Your task to perform on an android device: empty trash in the gmail app Image 0: 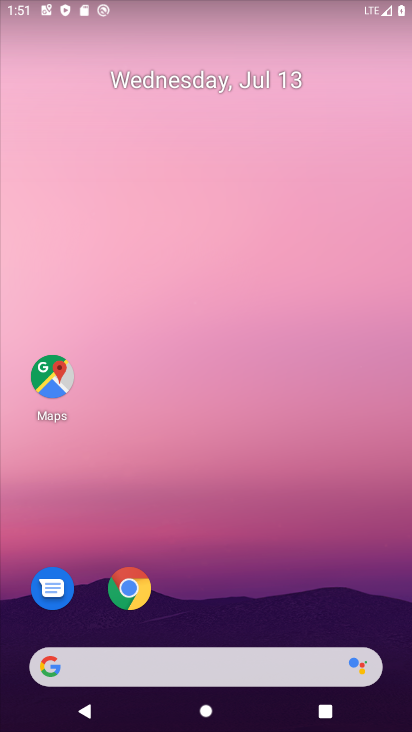
Step 0: drag from (398, 689) to (339, 198)
Your task to perform on an android device: empty trash in the gmail app Image 1: 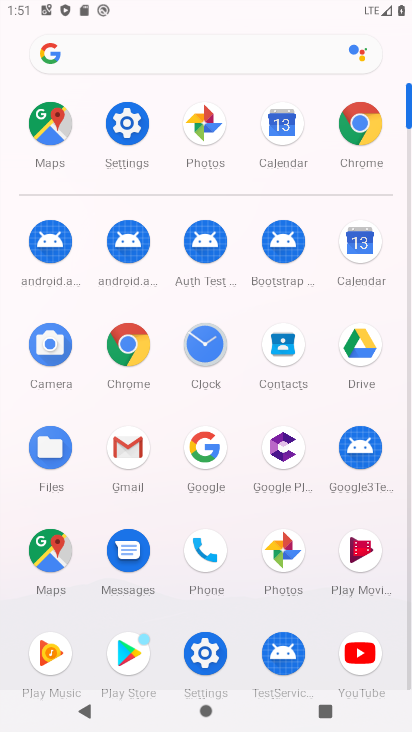
Step 1: click (132, 453)
Your task to perform on an android device: empty trash in the gmail app Image 2: 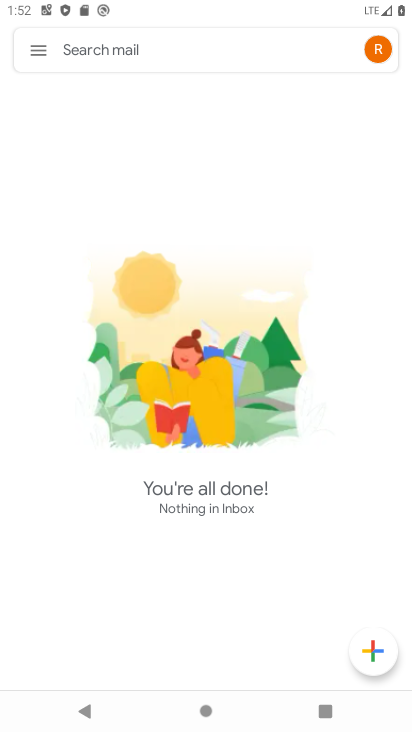
Step 2: click (36, 46)
Your task to perform on an android device: empty trash in the gmail app Image 3: 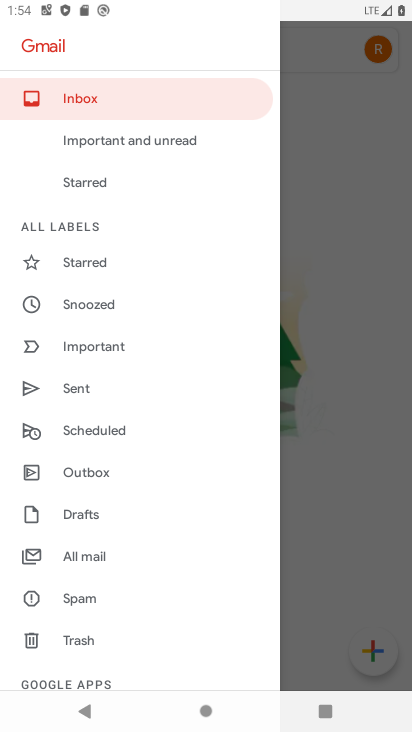
Step 3: drag from (143, 639) to (150, 393)
Your task to perform on an android device: empty trash in the gmail app Image 4: 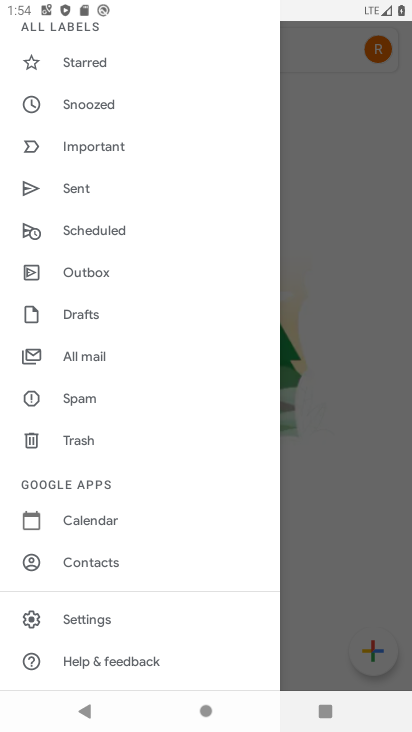
Step 4: click (89, 616)
Your task to perform on an android device: empty trash in the gmail app Image 5: 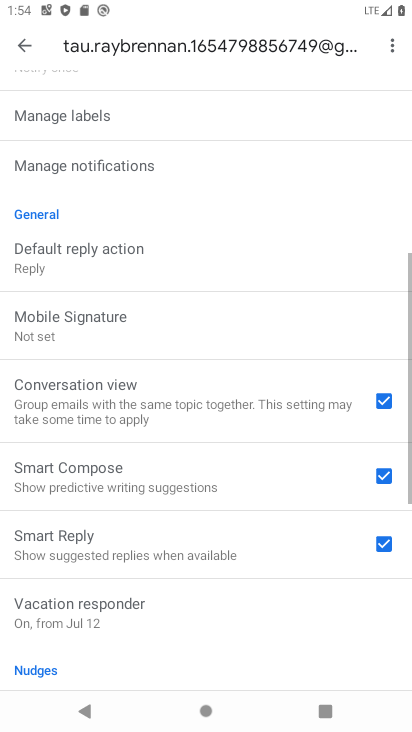
Step 5: press back button
Your task to perform on an android device: empty trash in the gmail app Image 6: 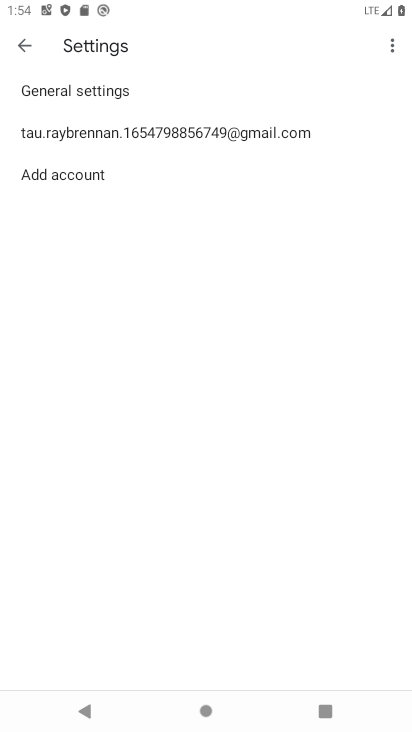
Step 6: click (16, 39)
Your task to perform on an android device: empty trash in the gmail app Image 7: 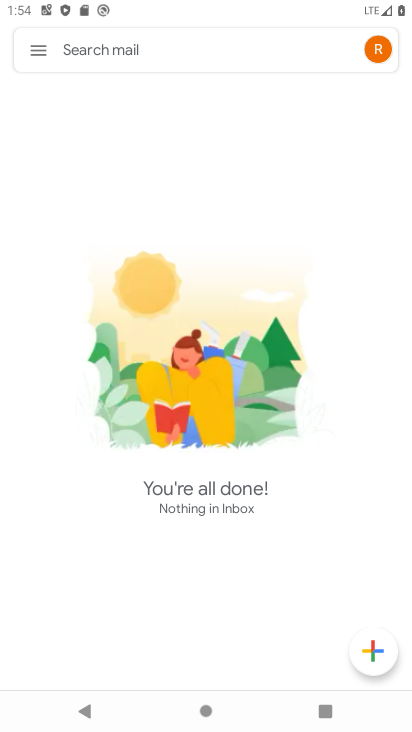
Step 7: click (39, 41)
Your task to perform on an android device: empty trash in the gmail app Image 8: 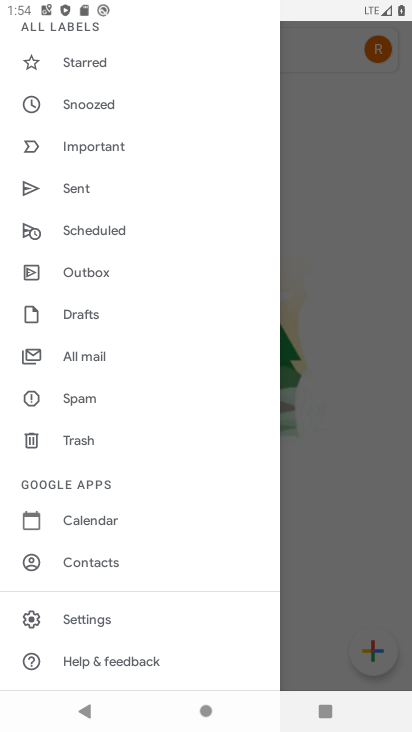
Step 8: click (76, 441)
Your task to perform on an android device: empty trash in the gmail app Image 9: 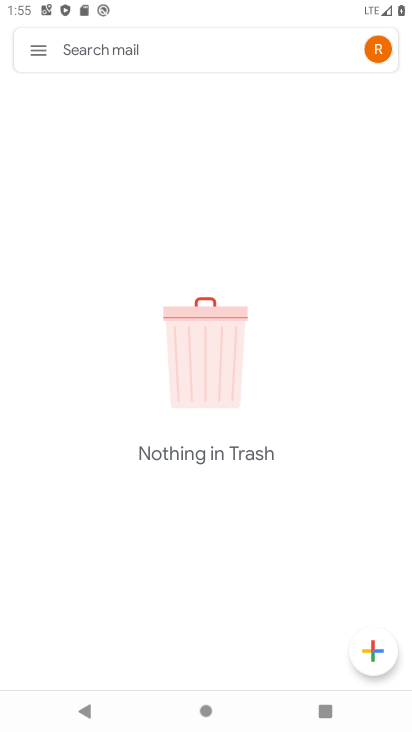
Step 9: task complete